Your task to perform on an android device: Open calendar and show me the second week of next month Image 0: 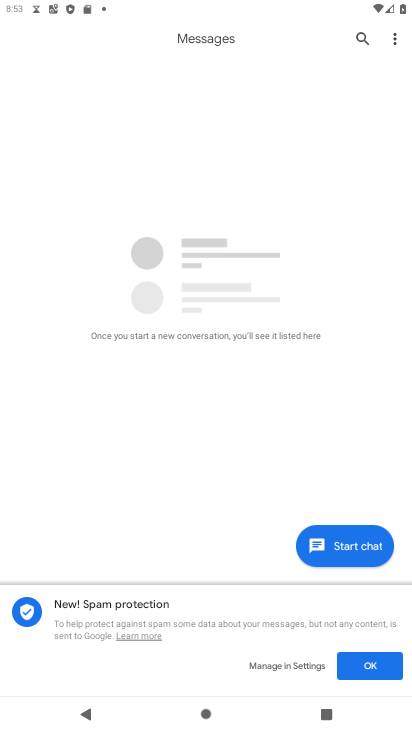
Step 0: press home button
Your task to perform on an android device: Open calendar and show me the second week of next month Image 1: 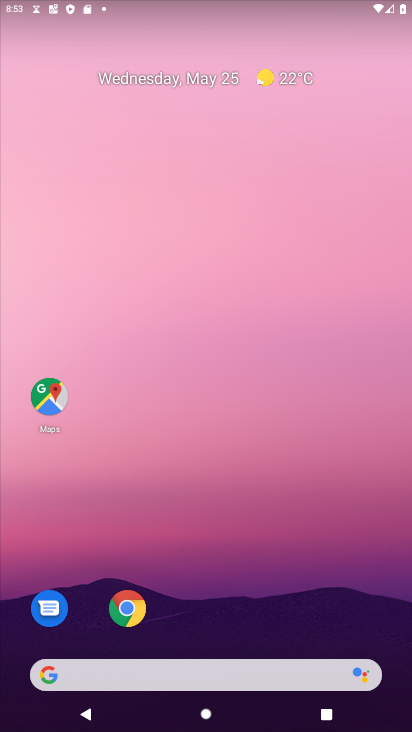
Step 1: drag from (236, 562) to (250, 1)
Your task to perform on an android device: Open calendar and show me the second week of next month Image 2: 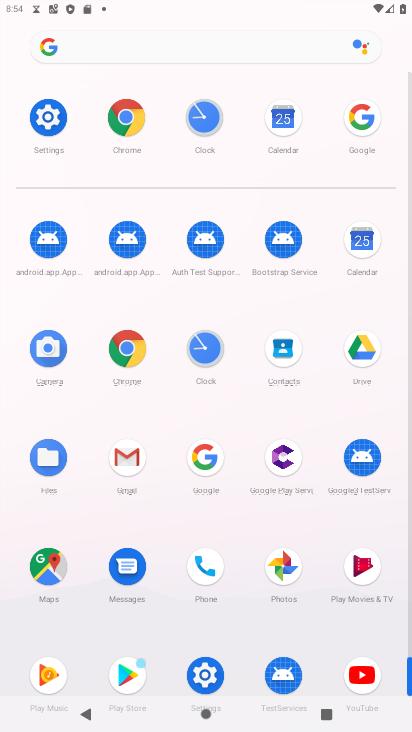
Step 2: click (280, 120)
Your task to perform on an android device: Open calendar and show me the second week of next month Image 3: 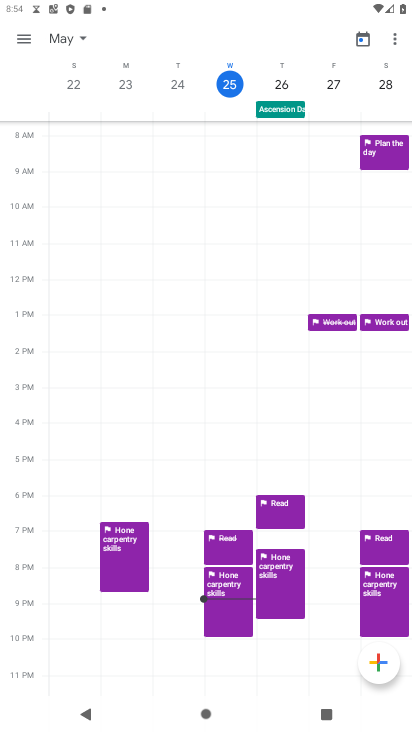
Step 3: click (366, 41)
Your task to perform on an android device: Open calendar and show me the second week of next month Image 4: 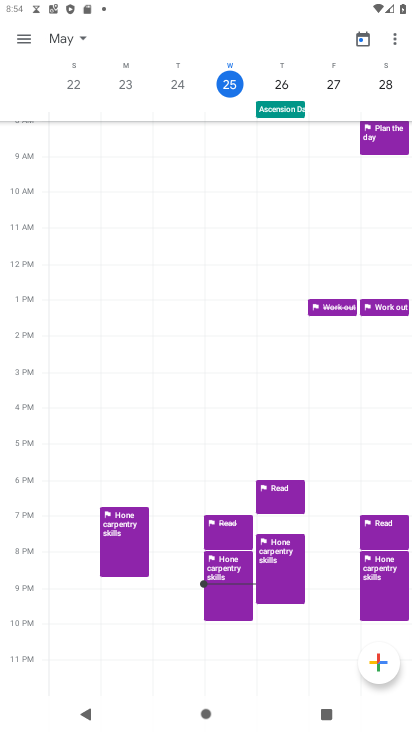
Step 4: click (81, 39)
Your task to perform on an android device: Open calendar and show me the second week of next month Image 5: 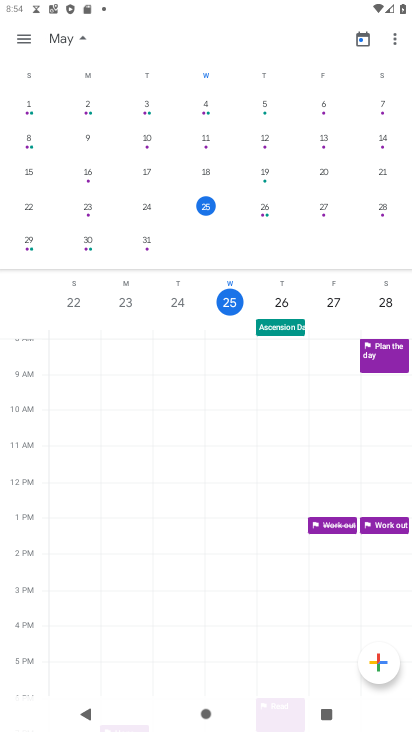
Step 5: drag from (307, 187) to (6, 182)
Your task to perform on an android device: Open calendar and show me the second week of next month Image 6: 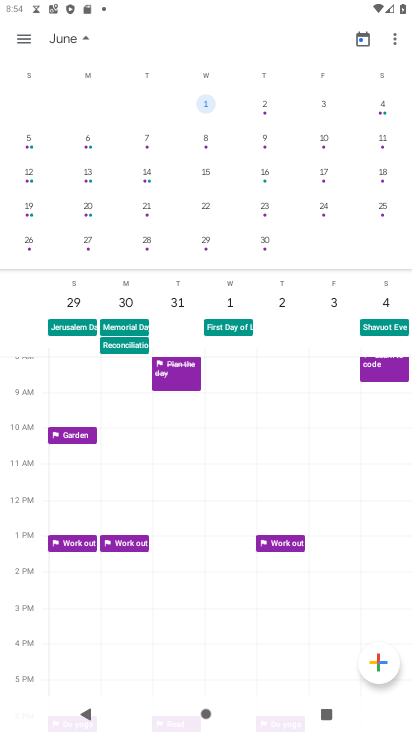
Step 6: click (93, 176)
Your task to perform on an android device: Open calendar and show me the second week of next month Image 7: 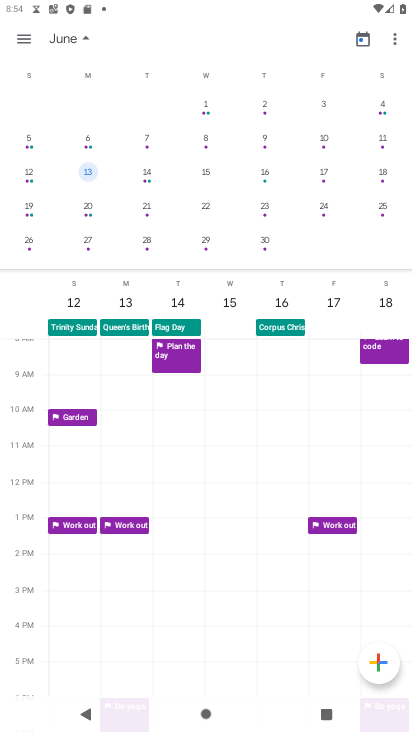
Step 7: click (17, 38)
Your task to perform on an android device: Open calendar and show me the second week of next month Image 8: 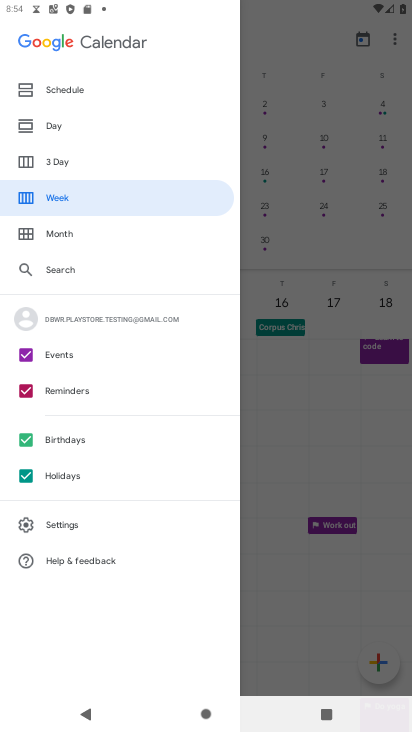
Step 8: click (113, 188)
Your task to perform on an android device: Open calendar and show me the second week of next month Image 9: 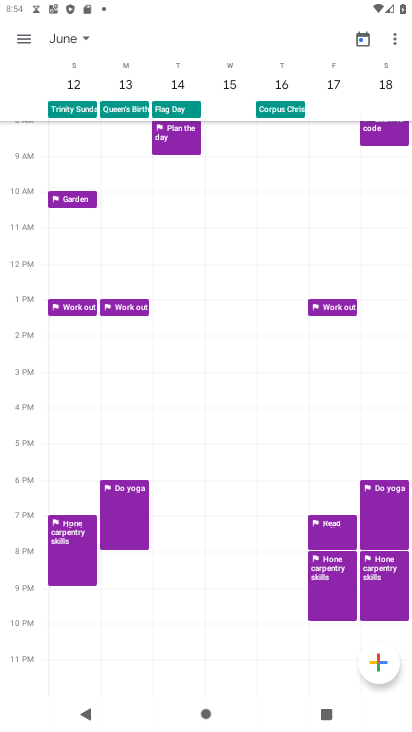
Step 9: task complete